Your task to perform on an android device: Do I have any events this weekend? Image 0: 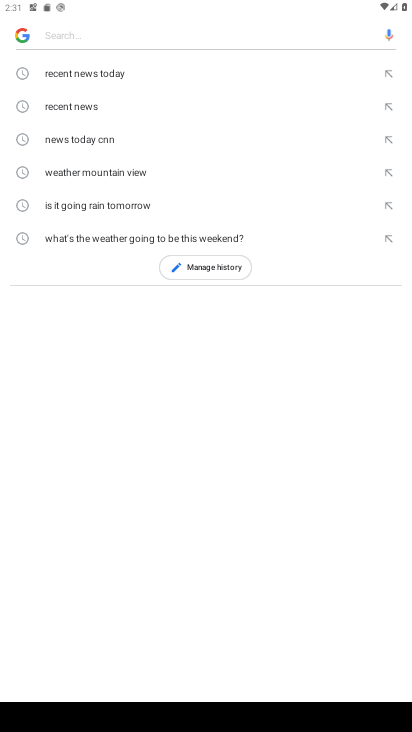
Step 0: drag from (291, 586) to (287, 306)
Your task to perform on an android device: Do I have any events this weekend? Image 1: 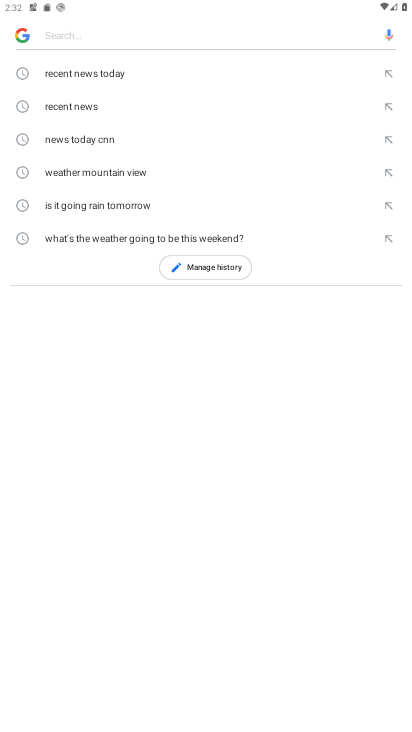
Step 1: drag from (300, 501) to (390, 252)
Your task to perform on an android device: Do I have any events this weekend? Image 2: 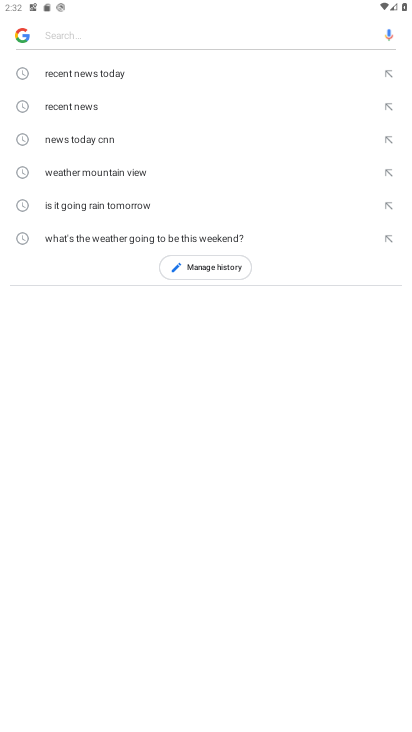
Step 2: press home button
Your task to perform on an android device: Do I have any events this weekend? Image 3: 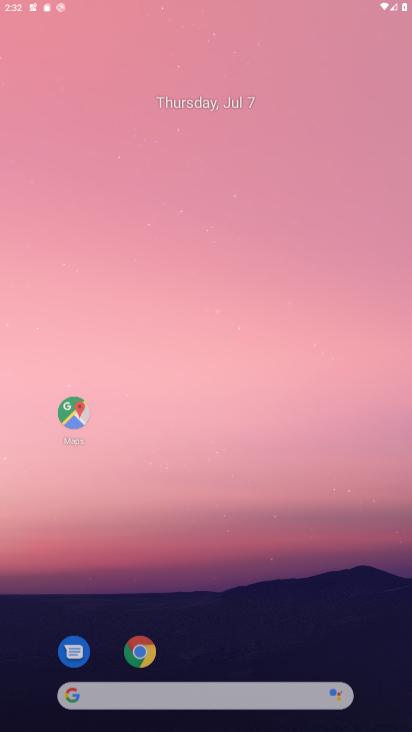
Step 3: drag from (300, 546) to (411, 283)
Your task to perform on an android device: Do I have any events this weekend? Image 4: 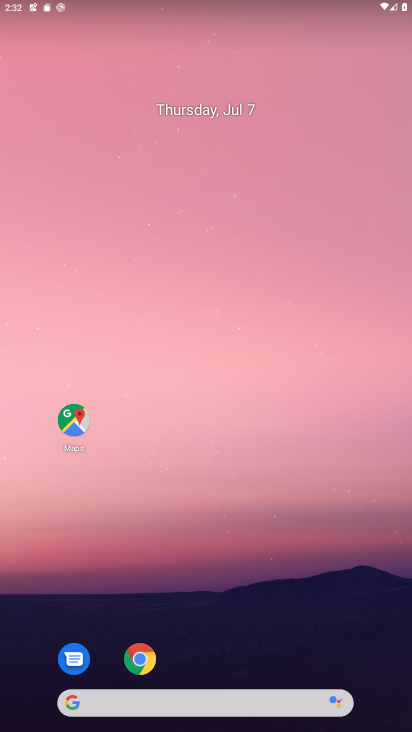
Step 4: drag from (235, 573) to (370, 21)
Your task to perform on an android device: Do I have any events this weekend? Image 5: 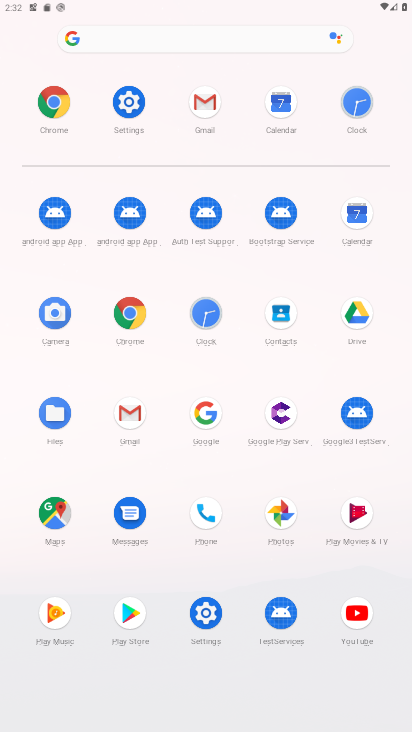
Step 5: click (359, 210)
Your task to perform on an android device: Do I have any events this weekend? Image 6: 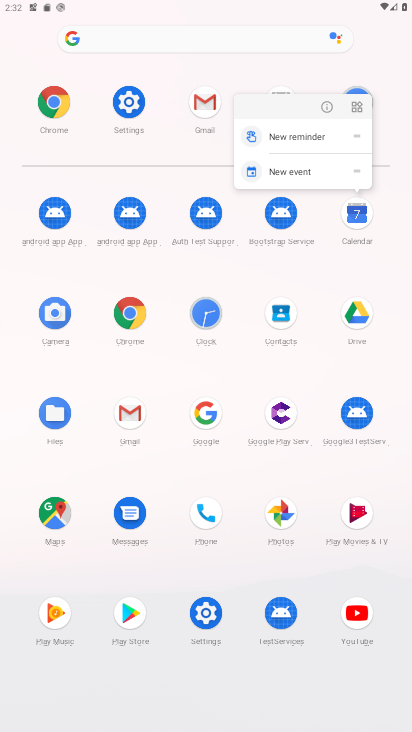
Step 6: click (334, 97)
Your task to perform on an android device: Do I have any events this weekend? Image 7: 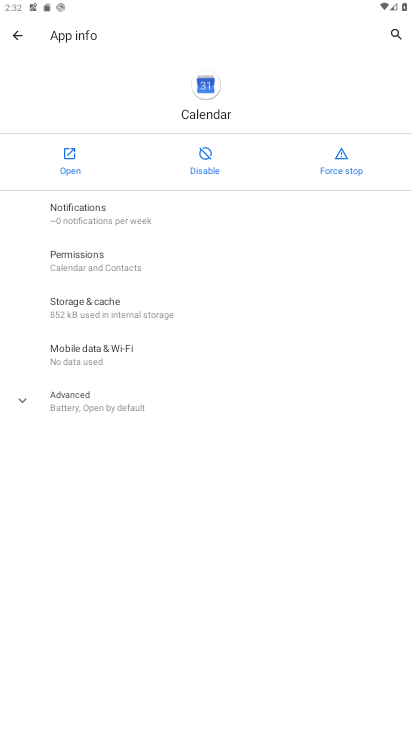
Step 7: click (73, 162)
Your task to perform on an android device: Do I have any events this weekend? Image 8: 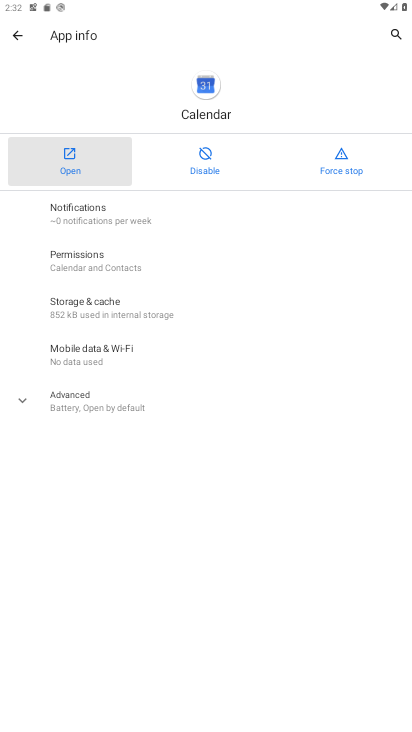
Step 8: click (73, 162)
Your task to perform on an android device: Do I have any events this weekend? Image 9: 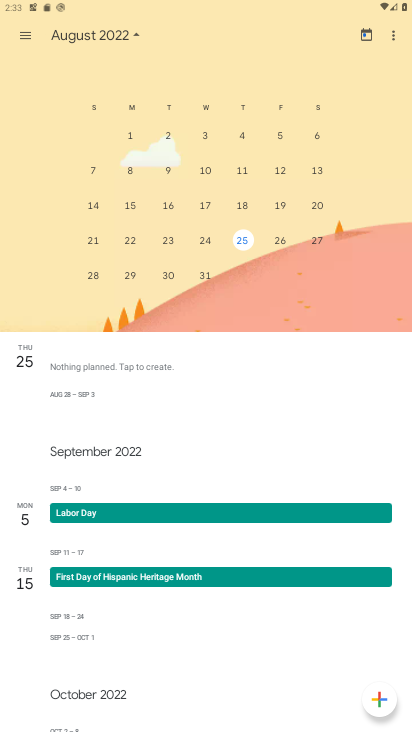
Step 9: drag from (218, 467) to (262, 303)
Your task to perform on an android device: Do I have any events this weekend? Image 10: 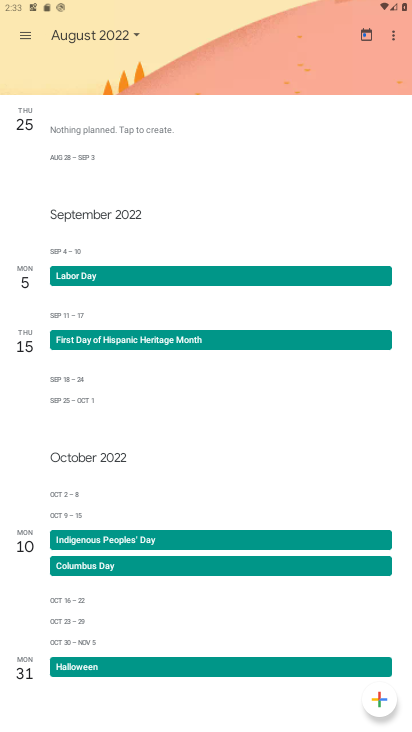
Step 10: drag from (270, 426) to (390, 286)
Your task to perform on an android device: Do I have any events this weekend? Image 11: 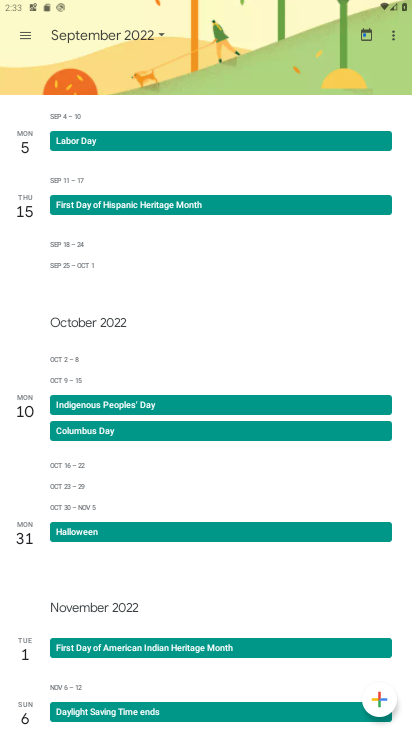
Step 11: click (148, 29)
Your task to perform on an android device: Do I have any events this weekend? Image 12: 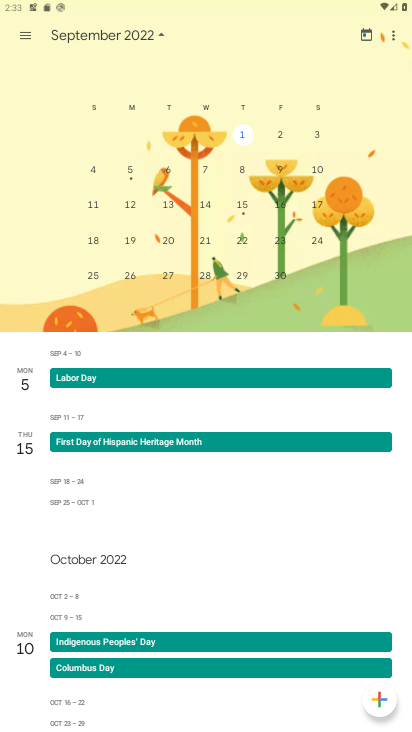
Step 12: drag from (206, 425) to (258, 178)
Your task to perform on an android device: Do I have any events this weekend? Image 13: 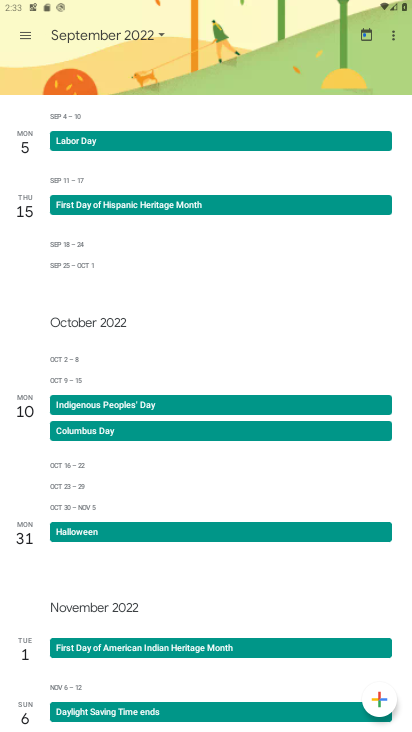
Step 13: drag from (298, 289) to (400, 680)
Your task to perform on an android device: Do I have any events this weekend? Image 14: 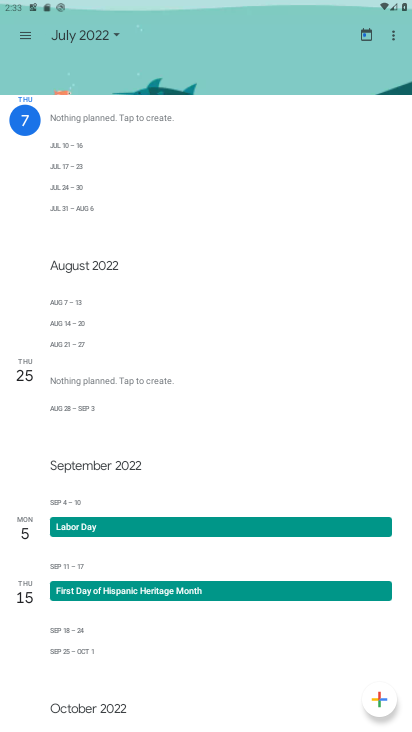
Step 14: click (101, 44)
Your task to perform on an android device: Do I have any events this weekend? Image 15: 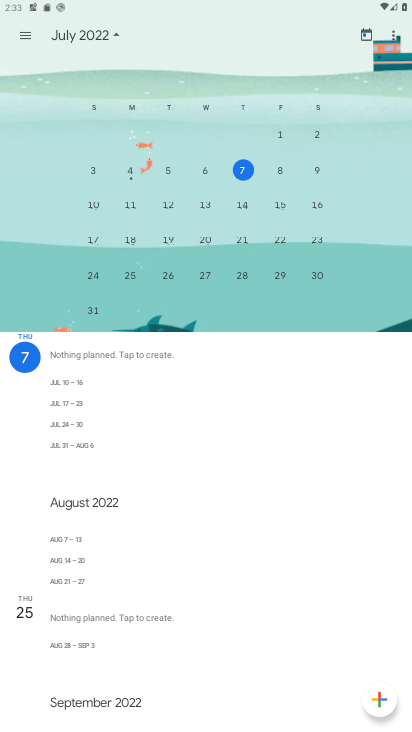
Step 15: click (321, 166)
Your task to perform on an android device: Do I have any events this weekend? Image 16: 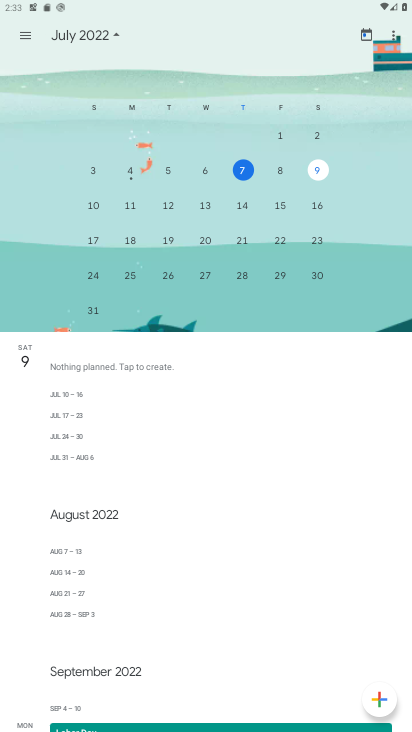
Step 16: task complete